Your task to perform on an android device: What's on my calendar today? Image 0: 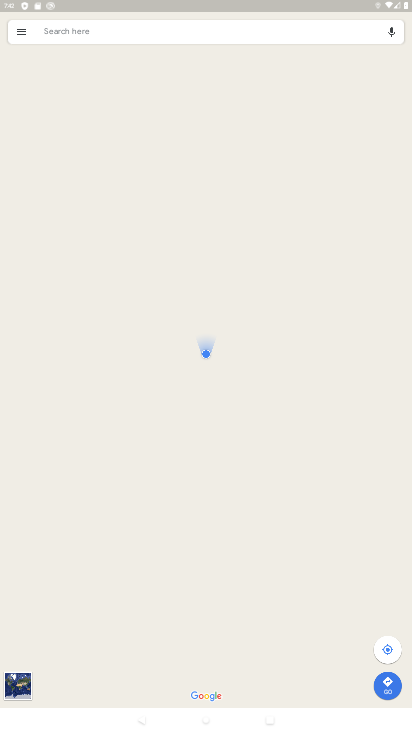
Step 0: press home button
Your task to perform on an android device: What's on my calendar today? Image 1: 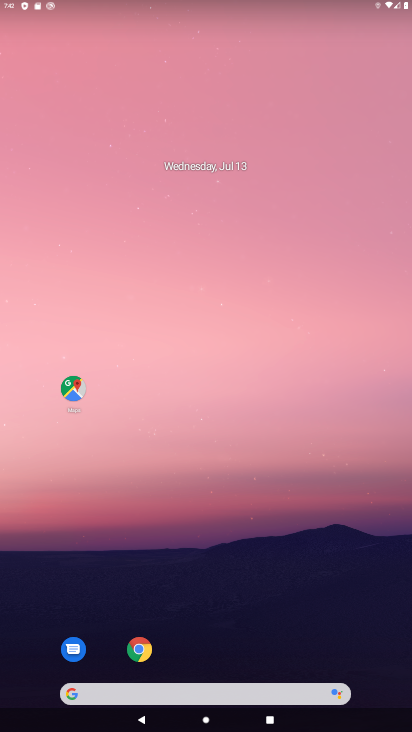
Step 1: drag from (254, 584) to (249, 14)
Your task to perform on an android device: What's on my calendar today? Image 2: 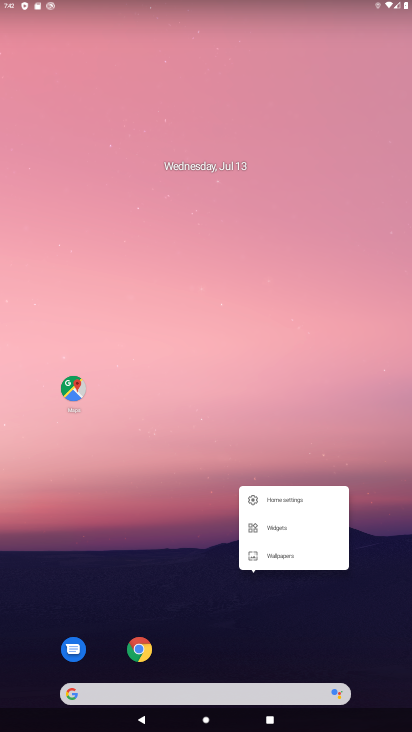
Step 2: drag from (207, 570) to (253, 5)
Your task to perform on an android device: What's on my calendar today? Image 3: 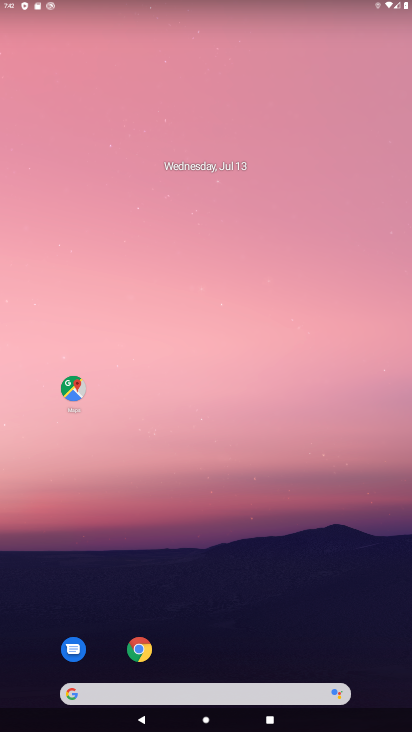
Step 3: click (298, 539)
Your task to perform on an android device: What's on my calendar today? Image 4: 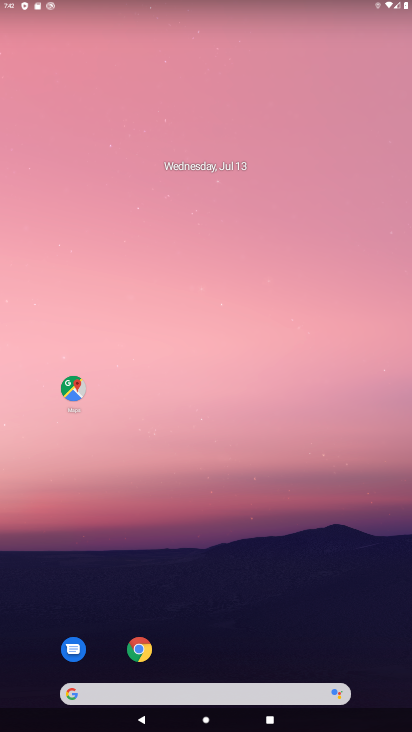
Step 4: drag from (307, 667) to (243, 76)
Your task to perform on an android device: What's on my calendar today? Image 5: 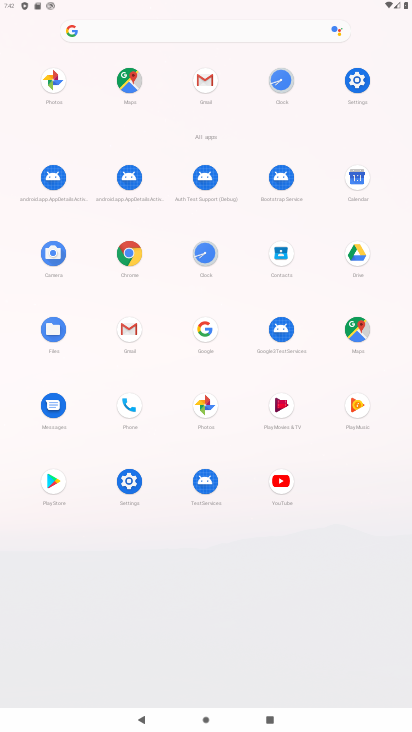
Step 5: click (353, 174)
Your task to perform on an android device: What's on my calendar today? Image 6: 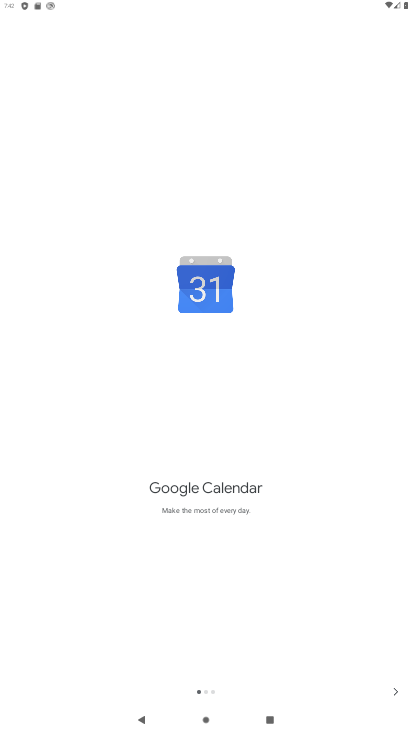
Step 6: click (398, 691)
Your task to perform on an android device: What's on my calendar today? Image 7: 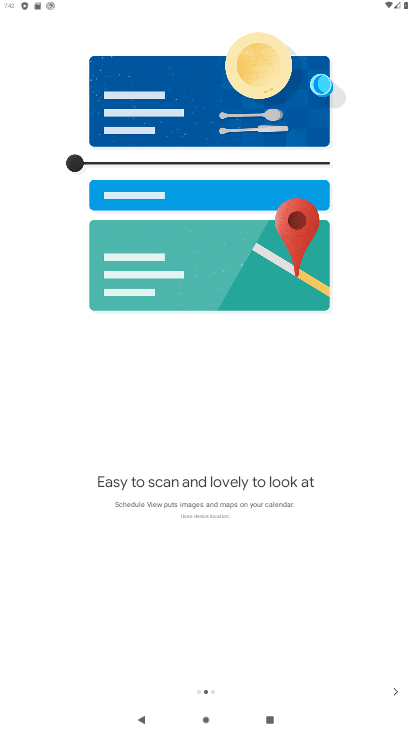
Step 7: click (398, 691)
Your task to perform on an android device: What's on my calendar today? Image 8: 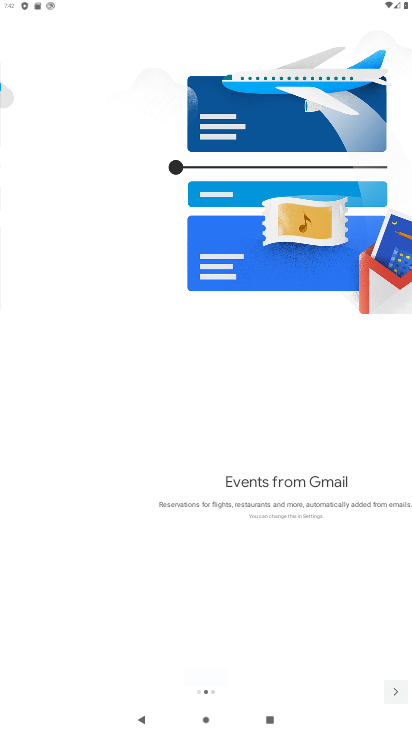
Step 8: click (398, 691)
Your task to perform on an android device: What's on my calendar today? Image 9: 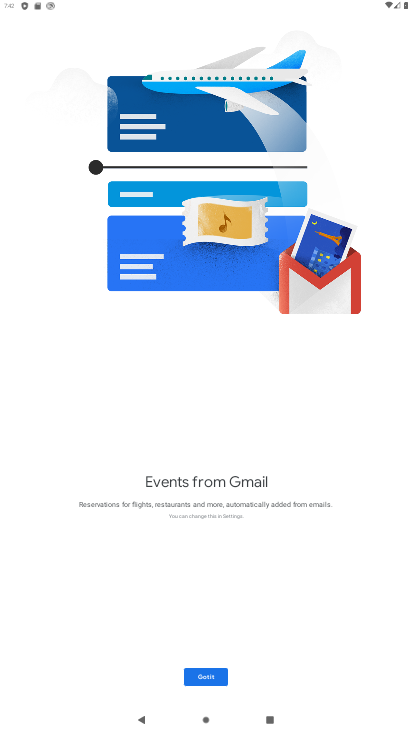
Step 9: click (214, 679)
Your task to perform on an android device: What's on my calendar today? Image 10: 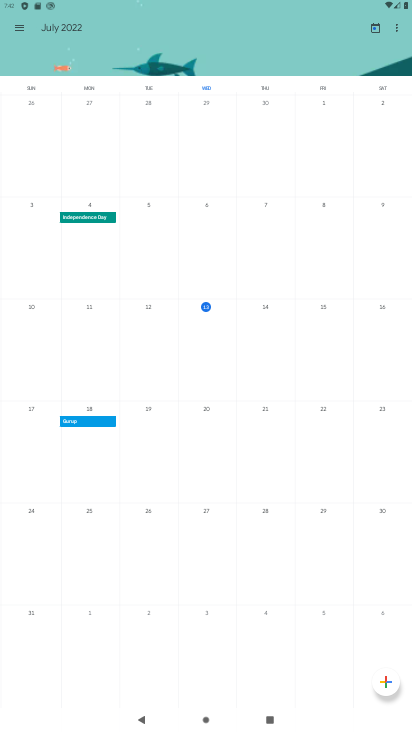
Step 10: click (22, 35)
Your task to perform on an android device: What's on my calendar today? Image 11: 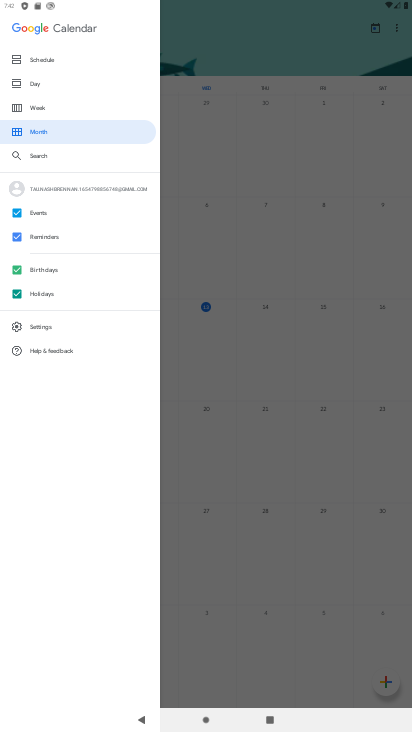
Step 11: click (45, 86)
Your task to perform on an android device: What's on my calendar today? Image 12: 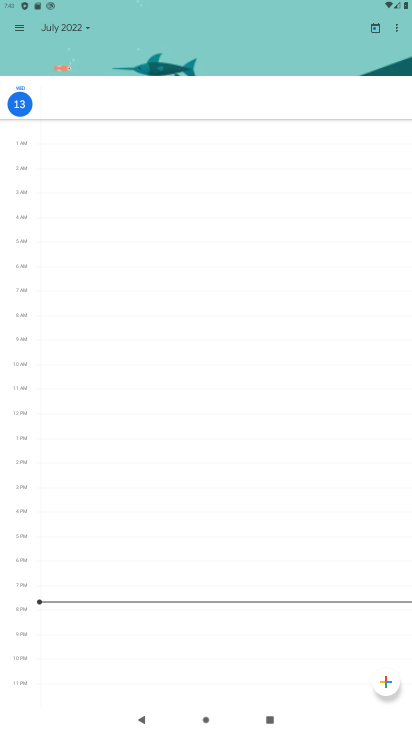
Step 12: task complete